Your task to perform on an android device: install app "DoorDash - Dasher" Image 0: 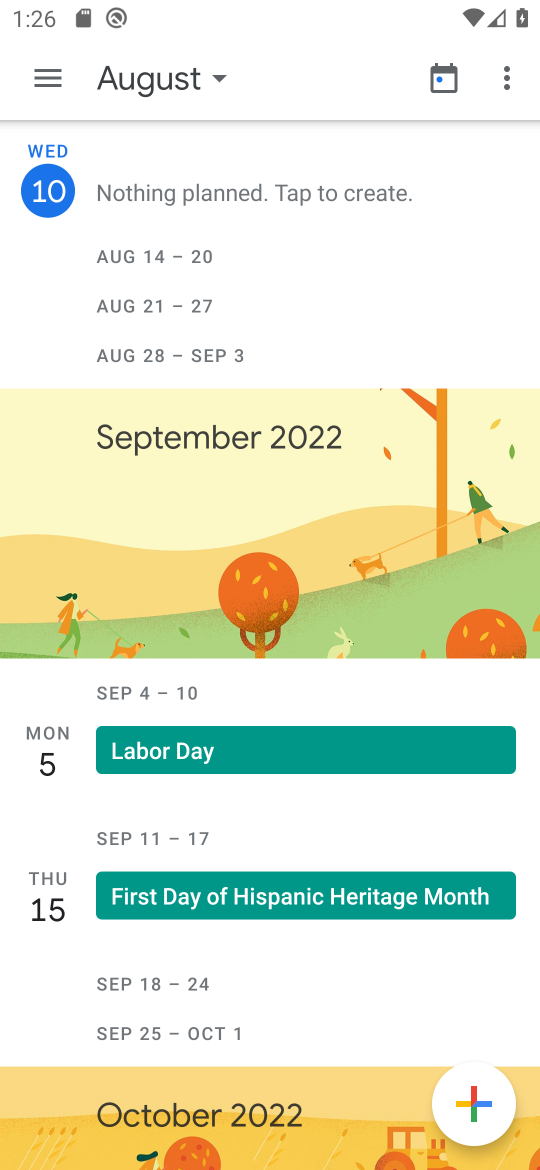
Step 0: press home button
Your task to perform on an android device: install app "DoorDash - Dasher" Image 1: 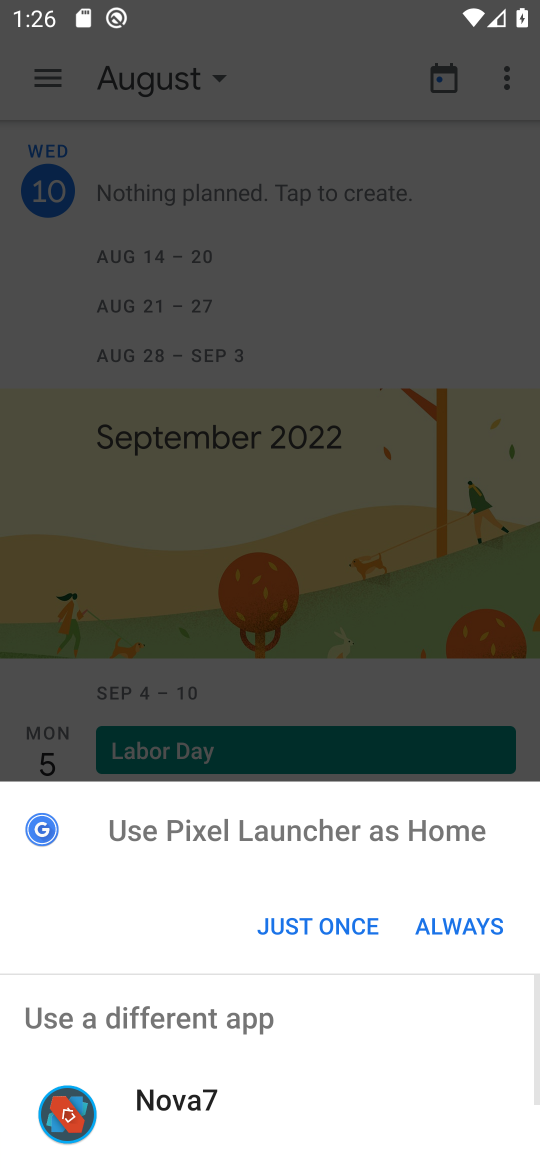
Step 1: click (263, 932)
Your task to perform on an android device: install app "DoorDash - Dasher" Image 2: 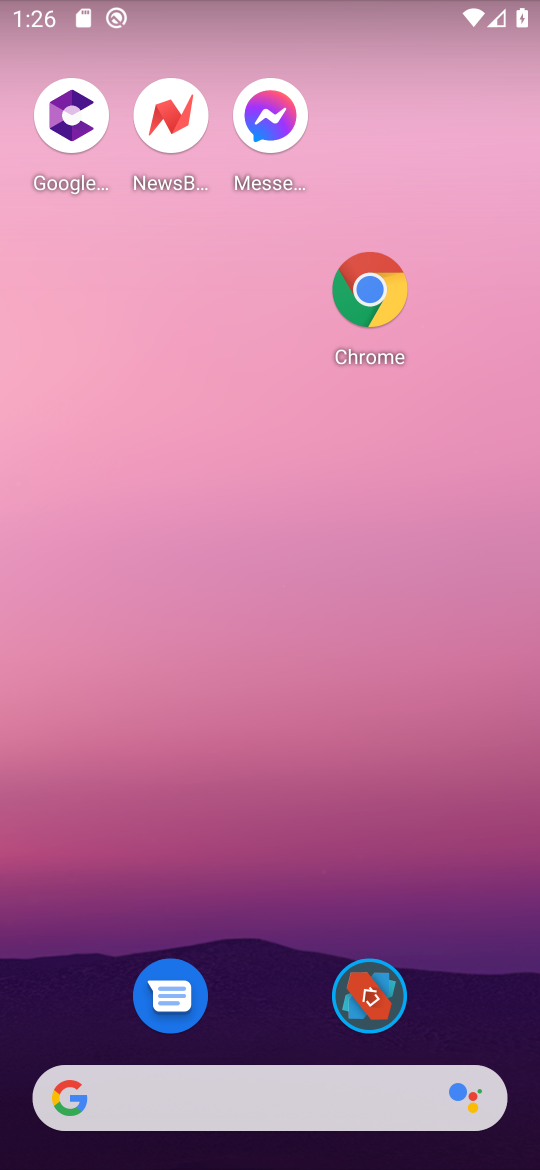
Step 2: drag from (272, 1060) to (354, 125)
Your task to perform on an android device: install app "DoorDash - Dasher" Image 3: 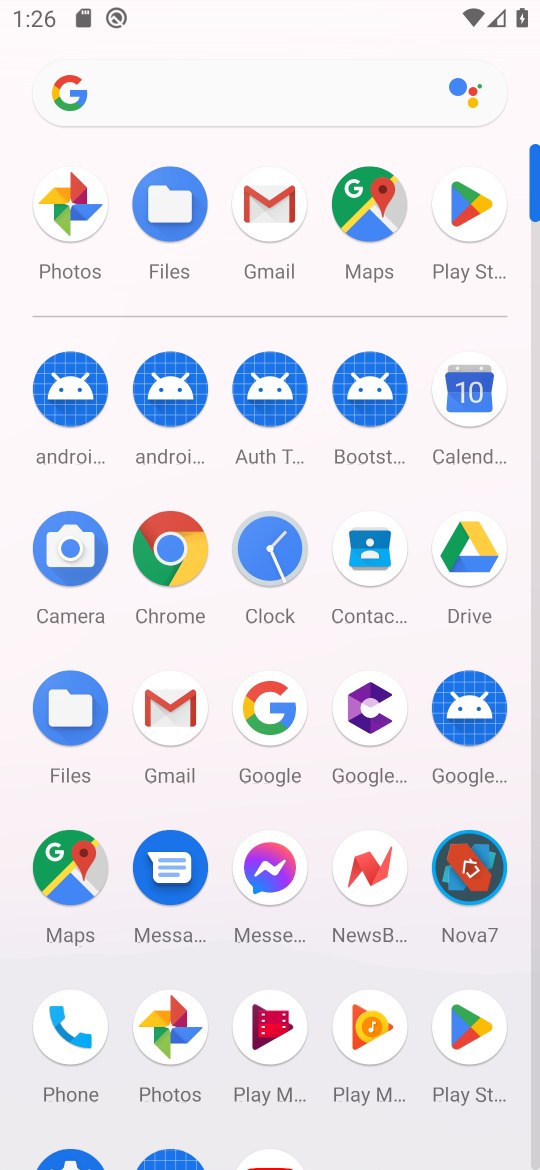
Step 3: click (473, 220)
Your task to perform on an android device: install app "DoorDash - Dasher" Image 4: 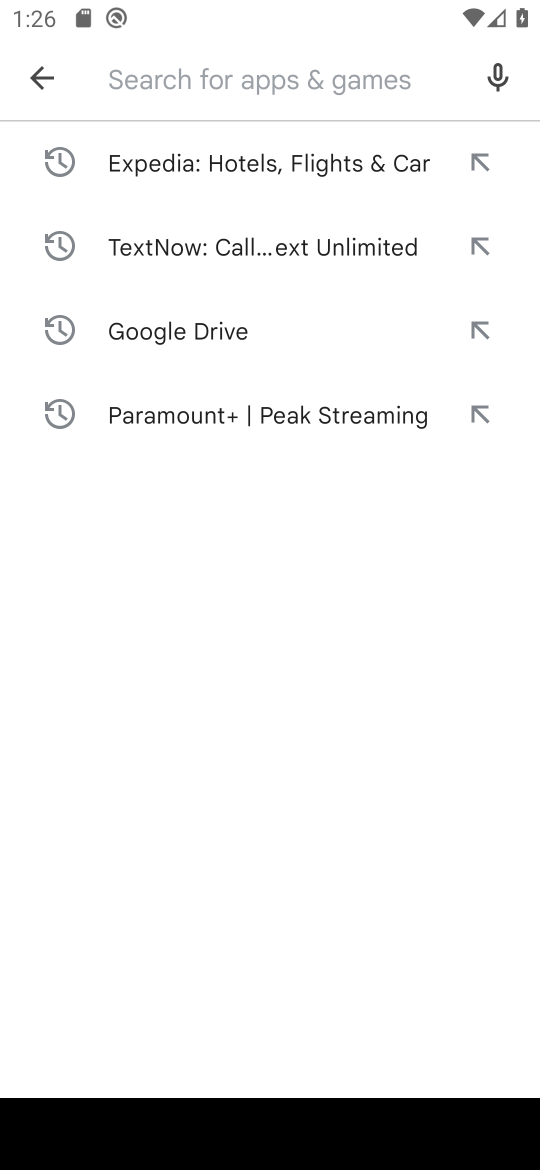
Step 4: type "DoorDash - Dasher"
Your task to perform on an android device: install app "DoorDash - Dasher" Image 5: 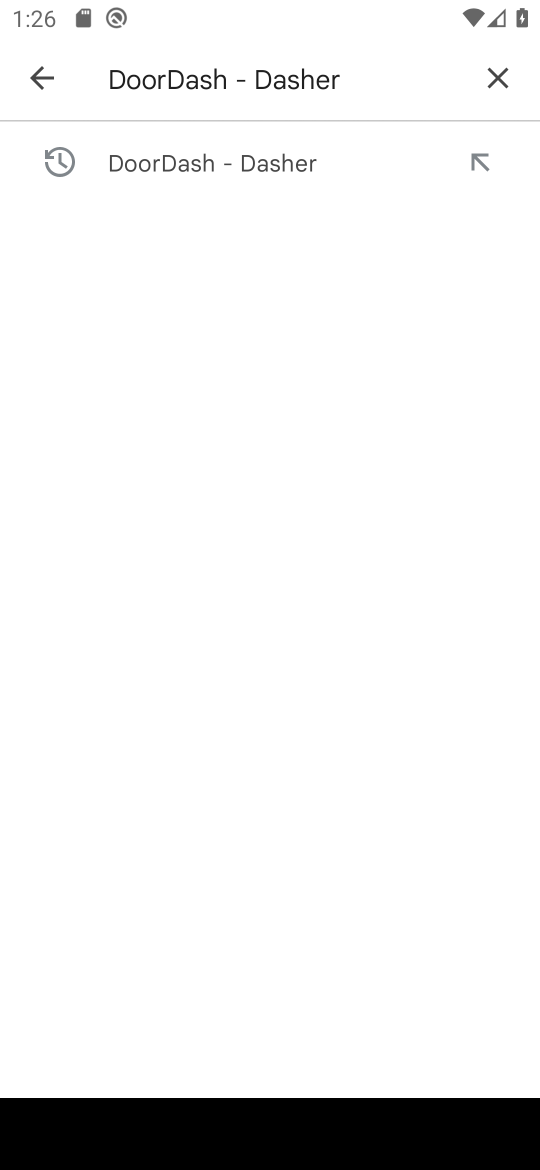
Step 5: click (254, 160)
Your task to perform on an android device: install app "DoorDash - Dasher" Image 6: 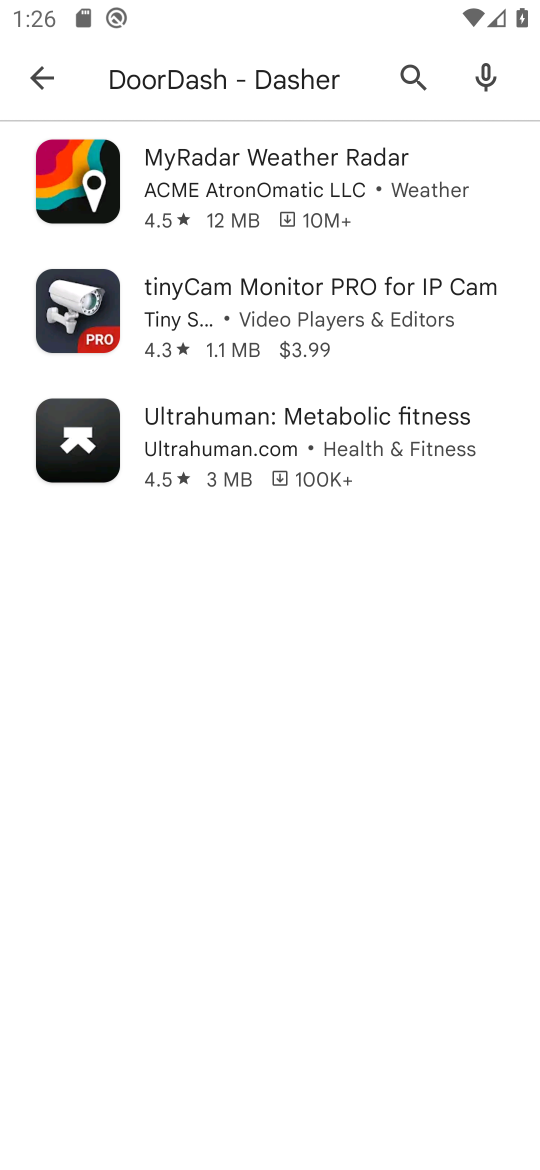
Step 6: task complete